Your task to perform on an android device: star an email in the gmail app Image 0: 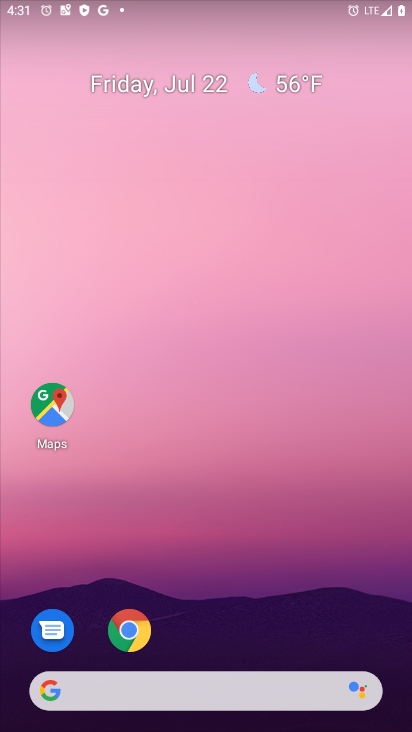
Step 0: drag from (244, 685) to (183, 96)
Your task to perform on an android device: star an email in the gmail app Image 1: 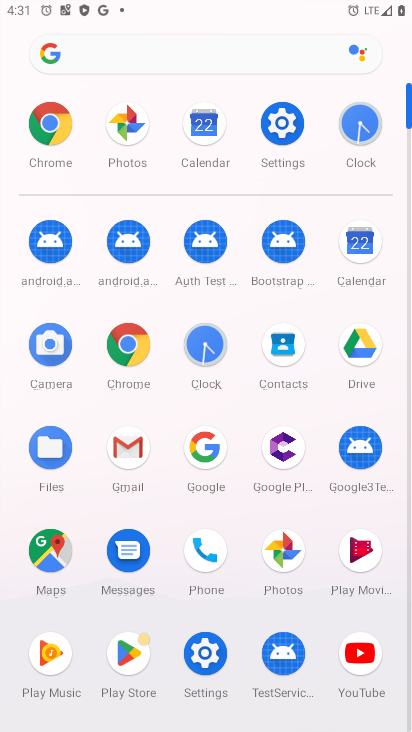
Step 1: click (123, 440)
Your task to perform on an android device: star an email in the gmail app Image 2: 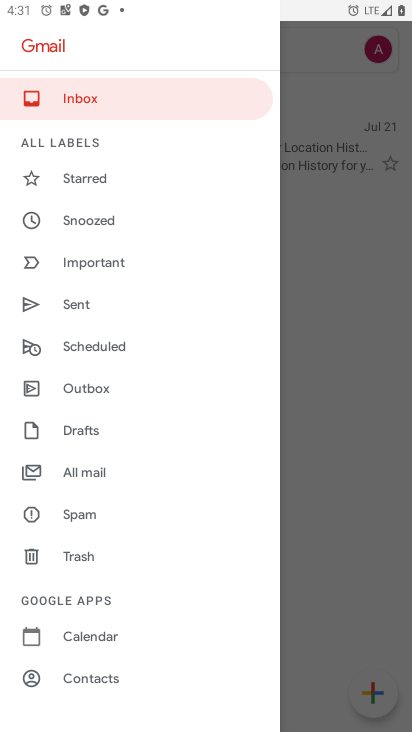
Step 2: click (91, 467)
Your task to perform on an android device: star an email in the gmail app Image 3: 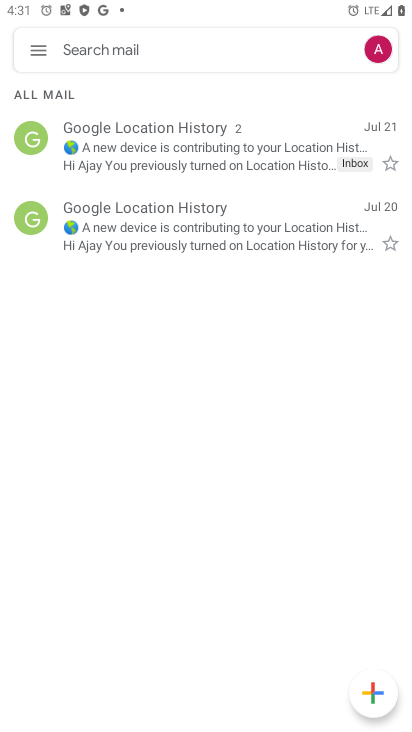
Step 3: click (387, 167)
Your task to perform on an android device: star an email in the gmail app Image 4: 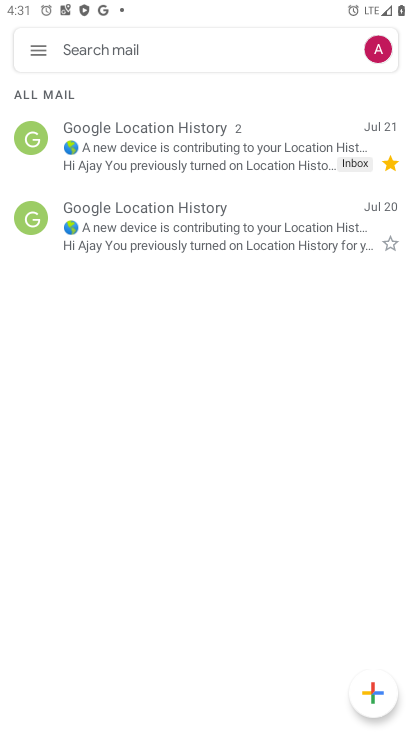
Step 4: task complete